Your task to perform on an android device: Search for a 100 ft extension cord Image 0: 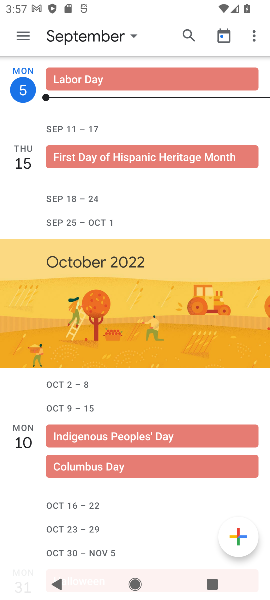
Step 0: press home button
Your task to perform on an android device: Search for a 100 ft extension cord Image 1: 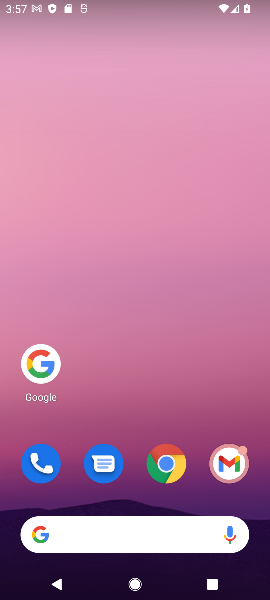
Step 1: click (33, 366)
Your task to perform on an android device: Search for a 100 ft extension cord Image 2: 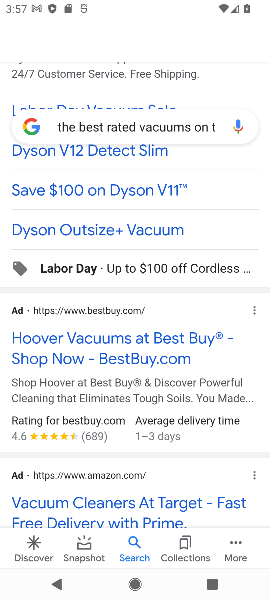
Step 2: click (159, 118)
Your task to perform on an android device: Search for a 100 ft extension cord Image 3: 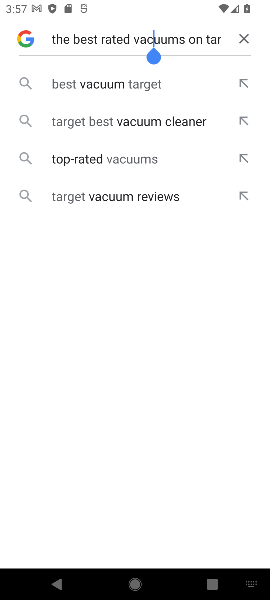
Step 3: click (240, 37)
Your task to perform on an android device: Search for a 100 ft extension cord Image 4: 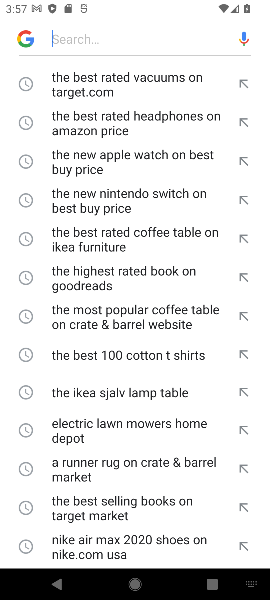
Step 4: click (122, 25)
Your task to perform on an android device: Search for a 100 ft extension cord Image 5: 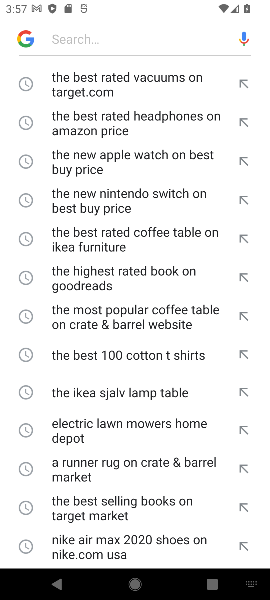
Step 5: type " a 100 ft extension cord "
Your task to perform on an android device: Search for a 100 ft extension cord Image 6: 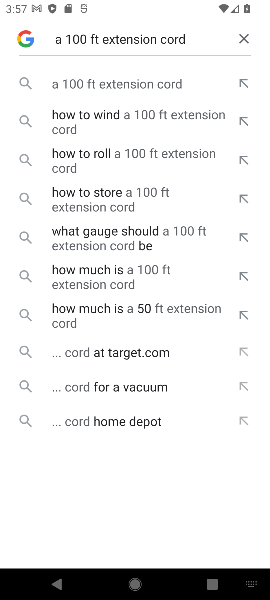
Step 6: click (85, 76)
Your task to perform on an android device: Search for a 100 ft extension cord Image 7: 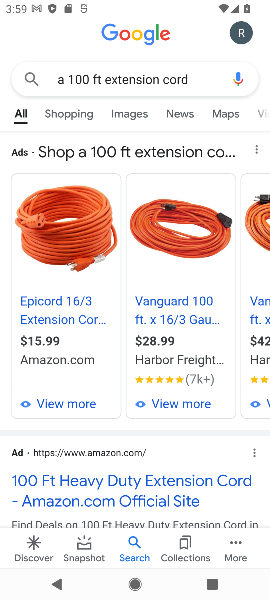
Step 7: task complete